Your task to perform on an android device: Search for the best-rated coffee table on Crate & Barrel Image 0: 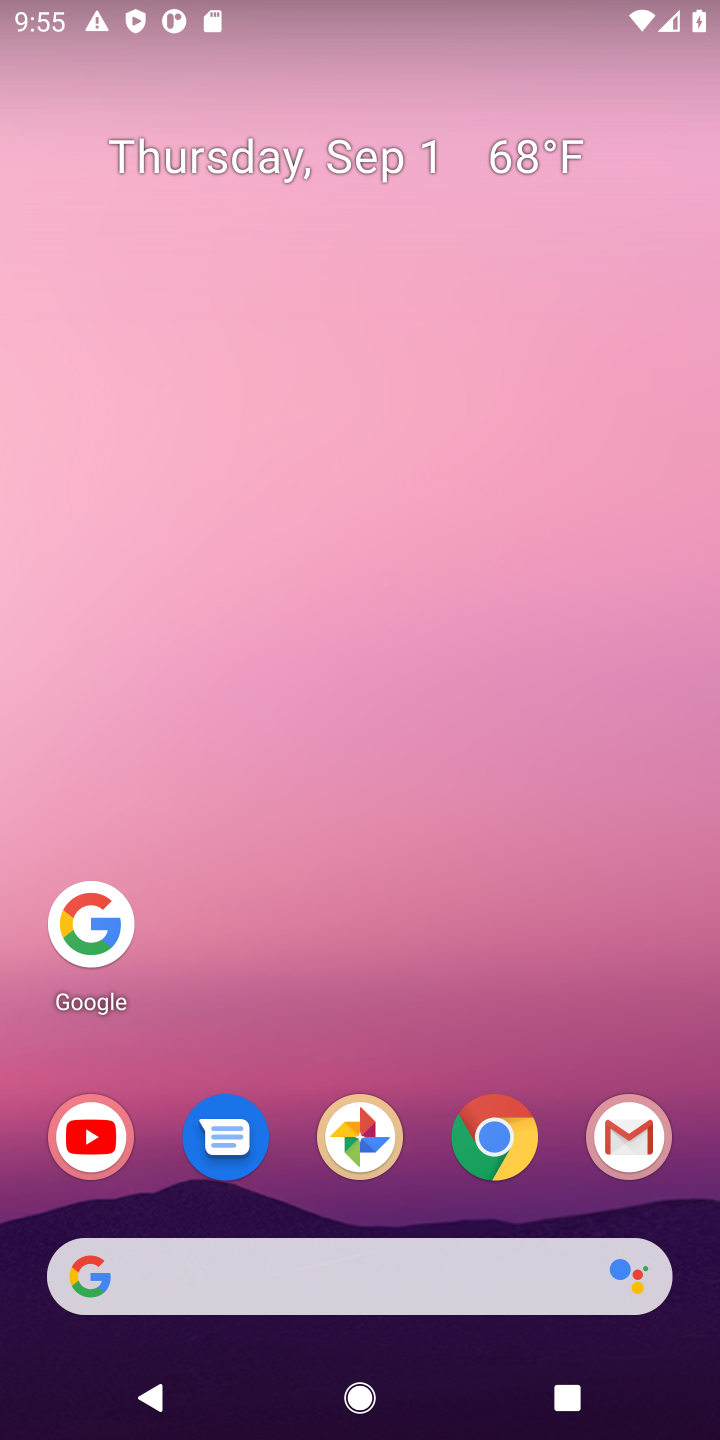
Step 0: click (173, 1269)
Your task to perform on an android device: Search for the best-rated coffee table on Crate & Barrel Image 1: 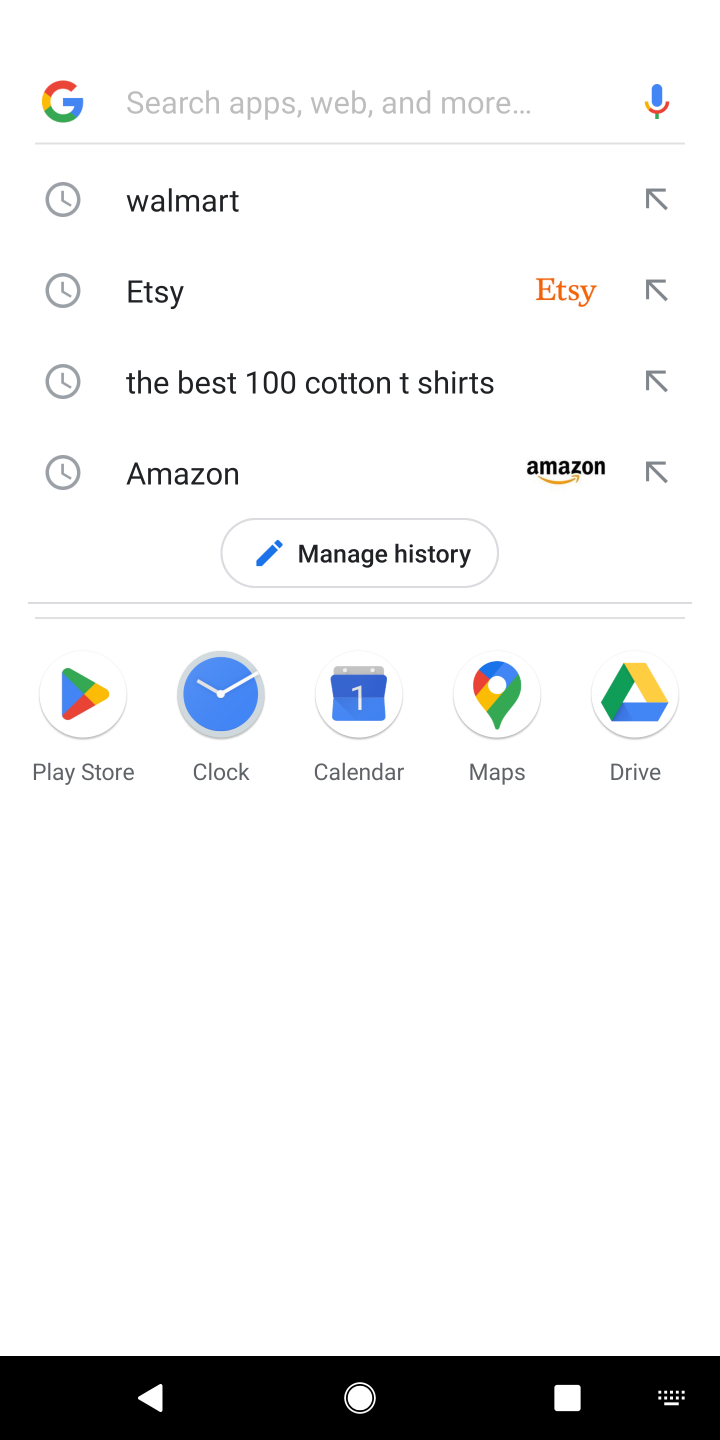
Step 1: type "crate&barrel"
Your task to perform on an android device: Search for the best-rated coffee table on Crate & Barrel Image 2: 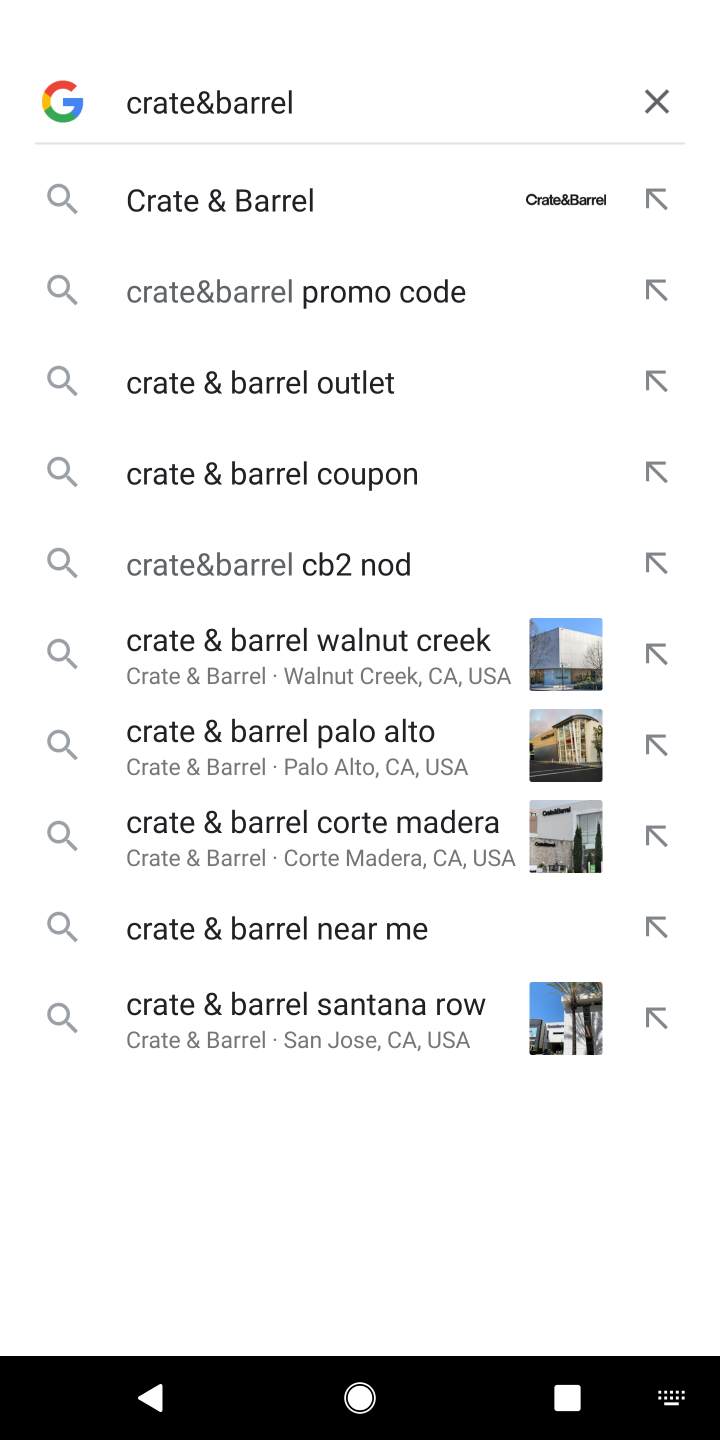
Step 2: click (251, 198)
Your task to perform on an android device: Search for the best-rated coffee table on Crate & Barrel Image 3: 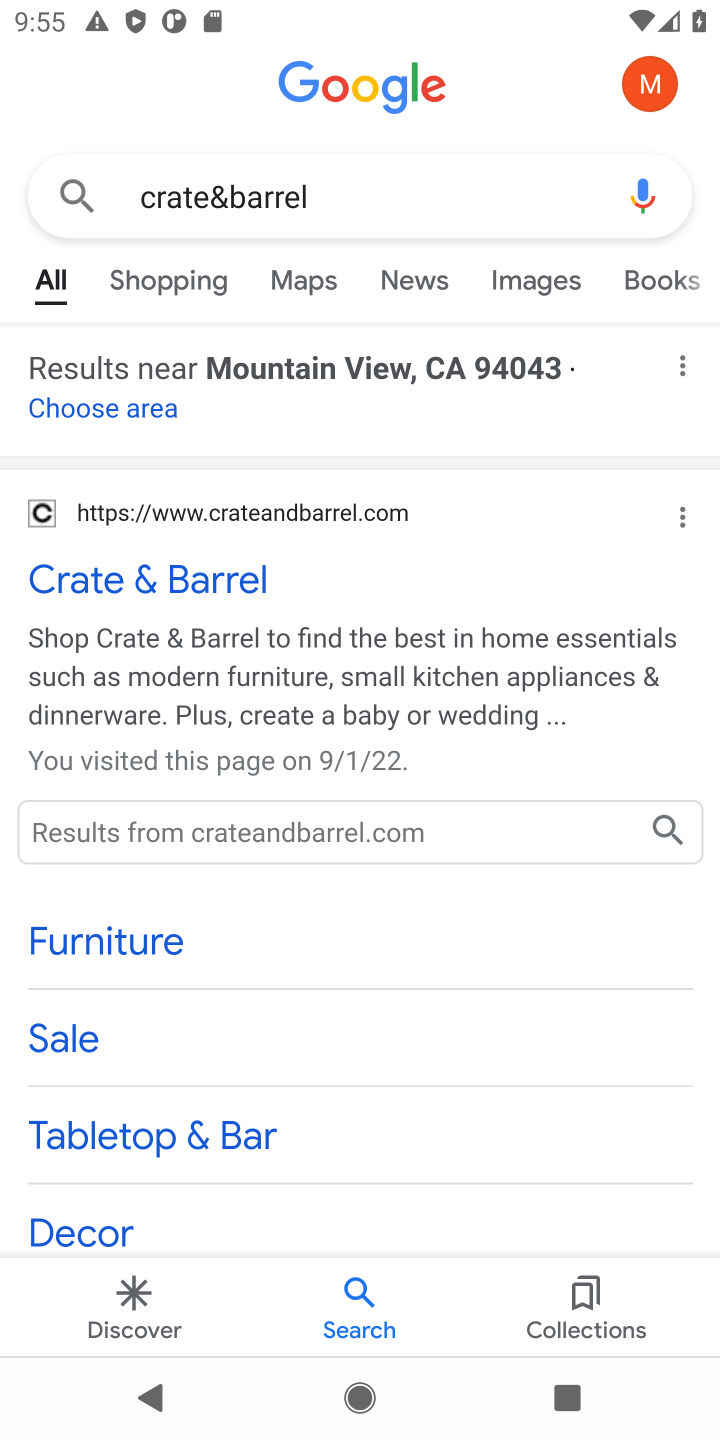
Step 3: click (123, 576)
Your task to perform on an android device: Search for the best-rated coffee table on Crate & Barrel Image 4: 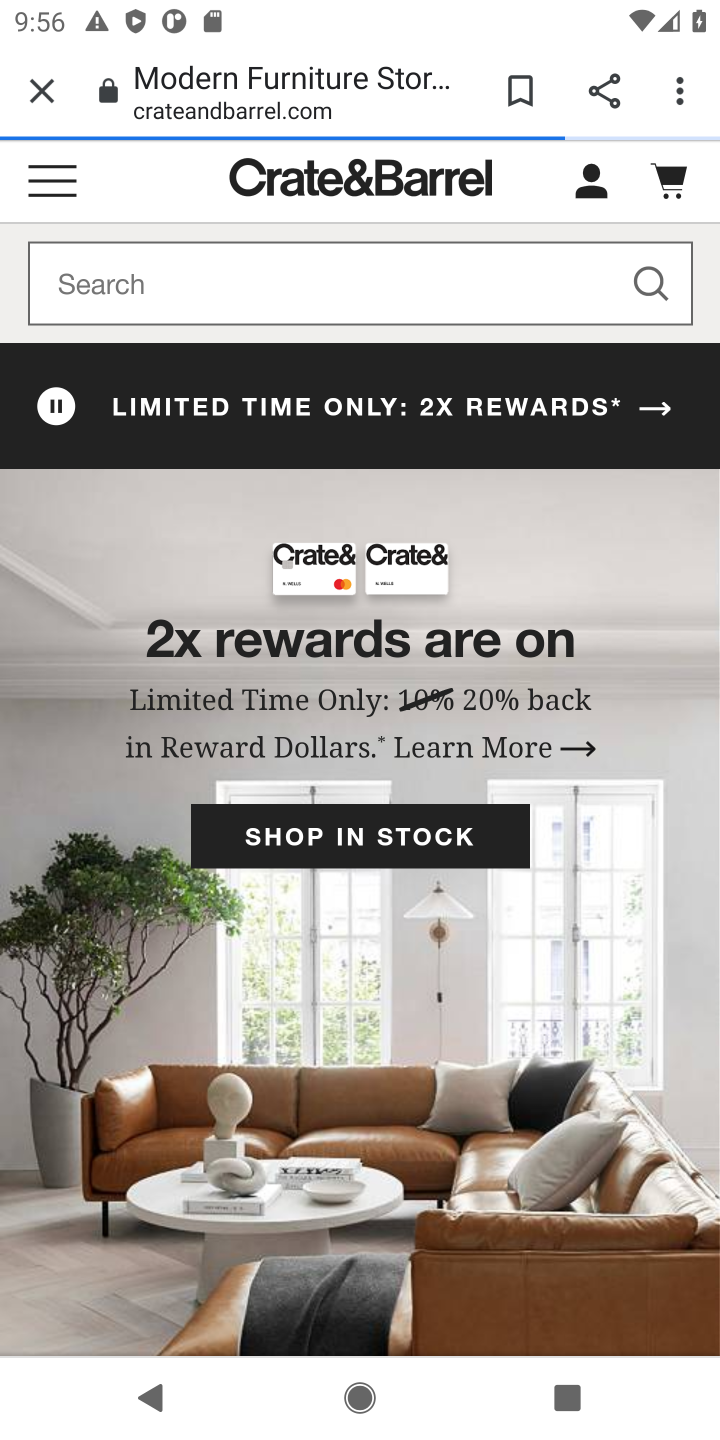
Step 4: click (201, 286)
Your task to perform on an android device: Search for the best-rated coffee table on Crate & Barrel Image 5: 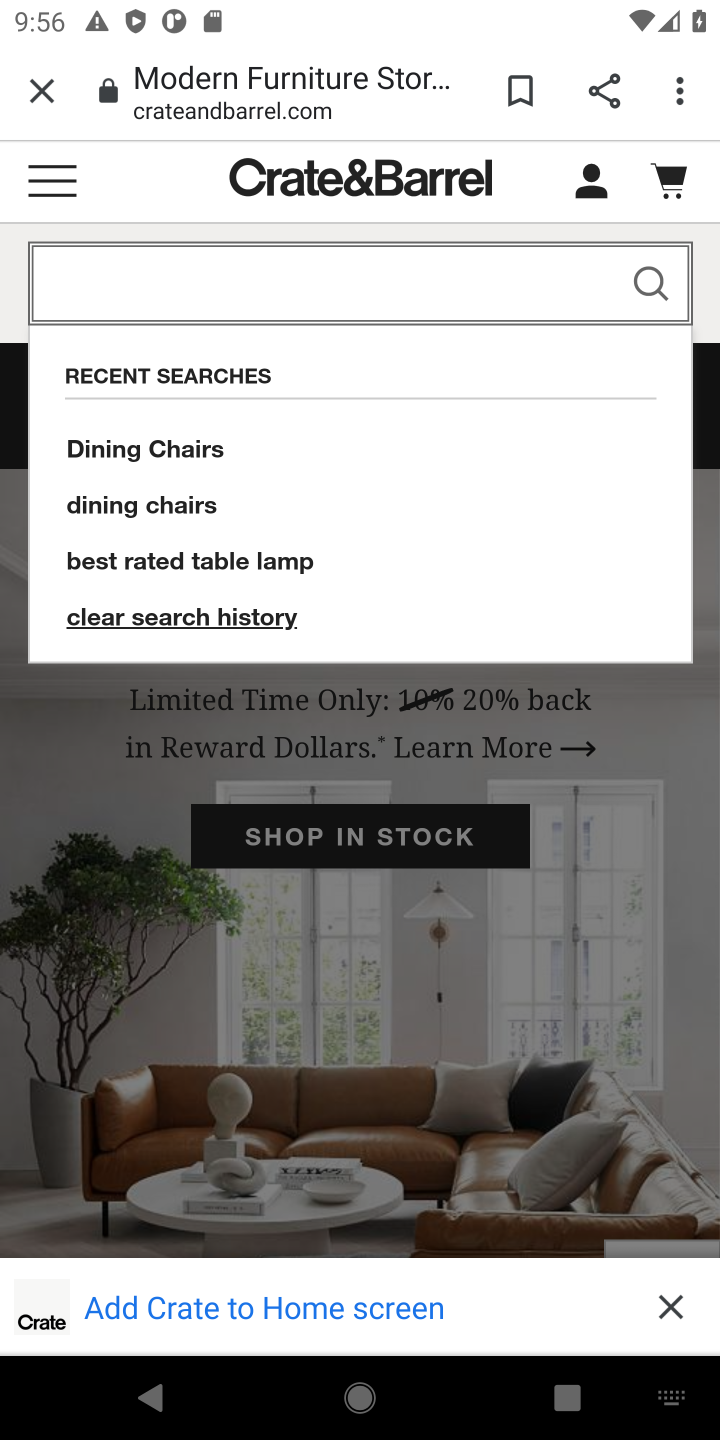
Step 5: type "best-rated coffee table"
Your task to perform on an android device: Search for the best-rated coffee table on Crate & Barrel Image 6: 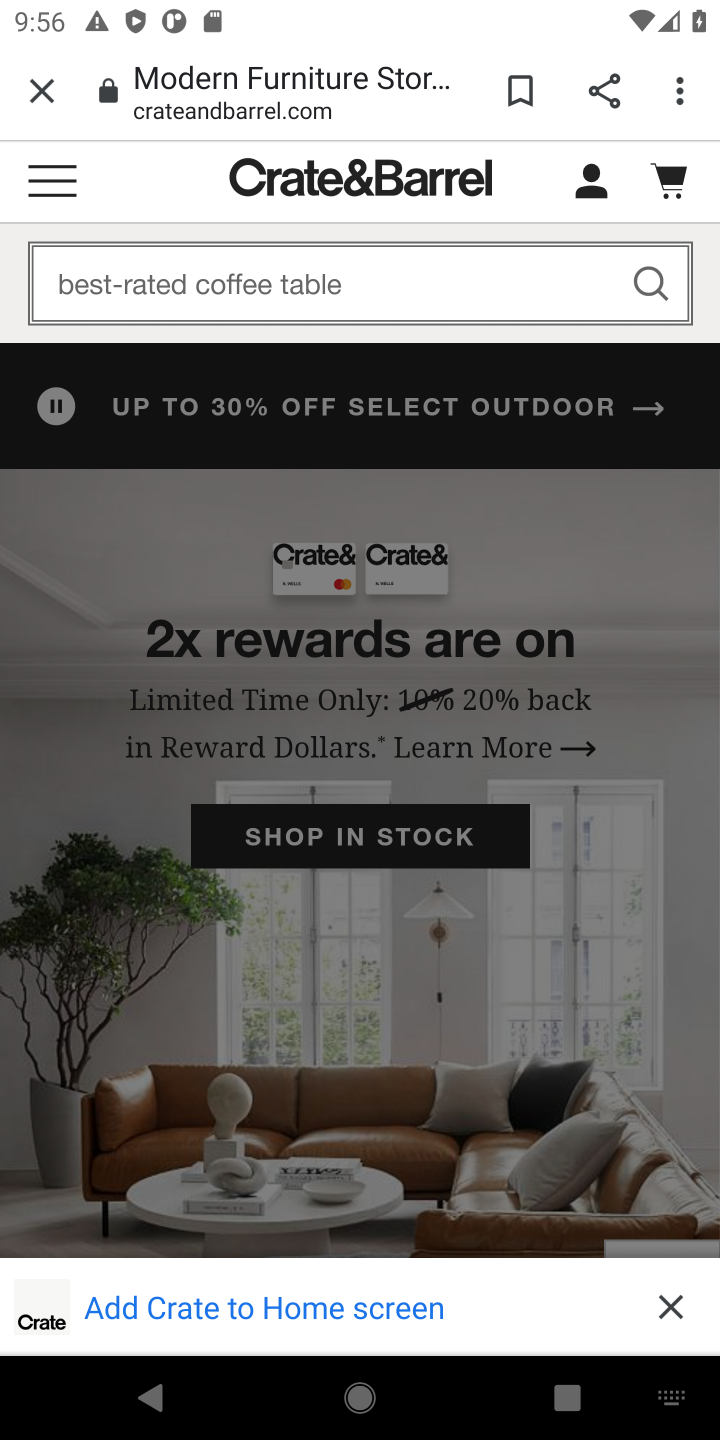
Step 6: click (641, 287)
Your task to perform on an android device: Search for the best-rated coffee table on Crate & Barrel Image 7: 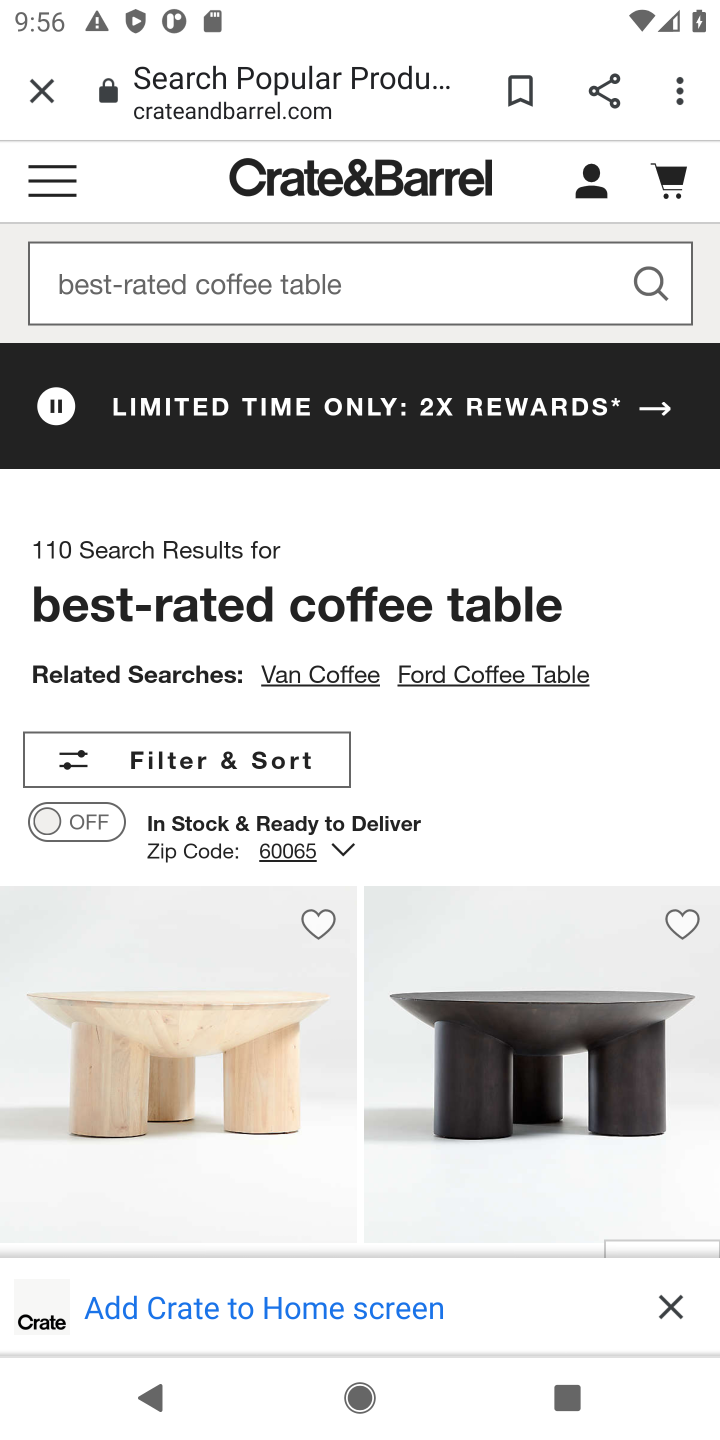
Step 7: task complete